Your task to perform on an android device: Open eBay Image 0: 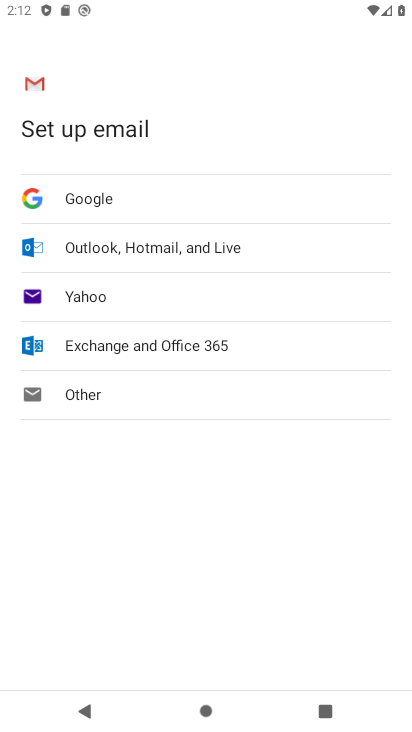
Step 0: press home button
Your task to perform on an android device: Open eBay Image 1: 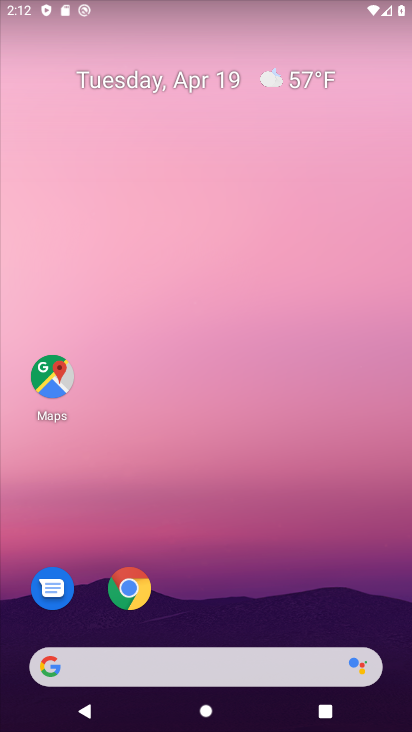
Step 1: click (136, 585)
Your task to perform on an android device: Open eBay Image 2: 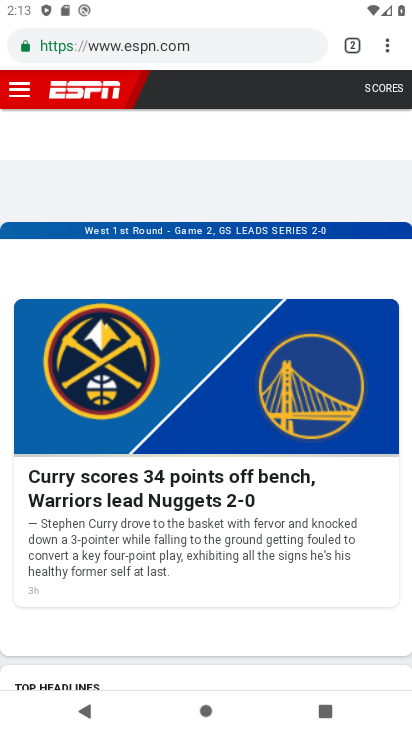
Step 2: click (385, 44)
Your task to perform on an android device: Open eBay Image 3: 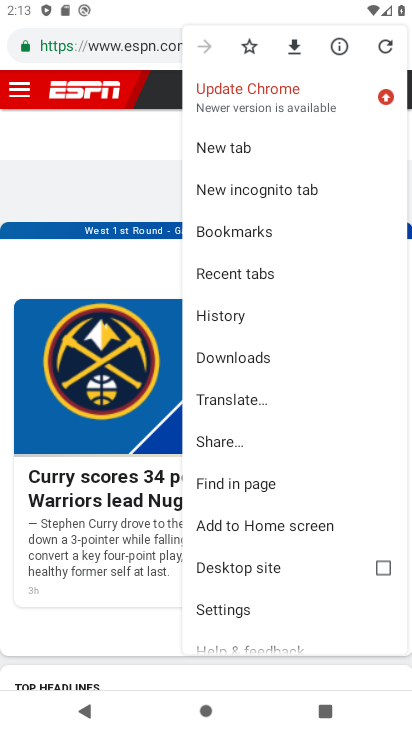
Step 3: click (288, 144)
Your task to perform on an android device: Open eBay Image 4: 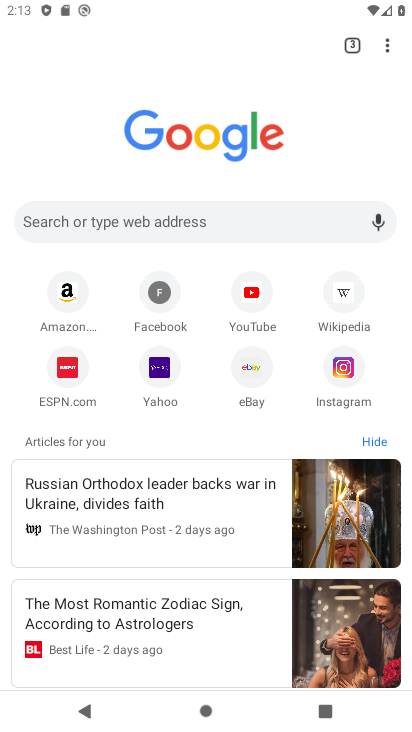
Step 4: click (253, 215)
Your task to perform on an android device: Open eBay Image 5: 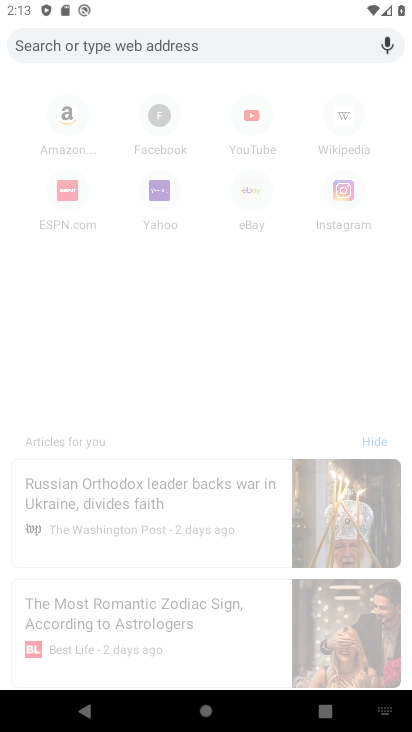
Step 5: type "eBay"
Your task to perform on an android device: Open eBay Image 6: 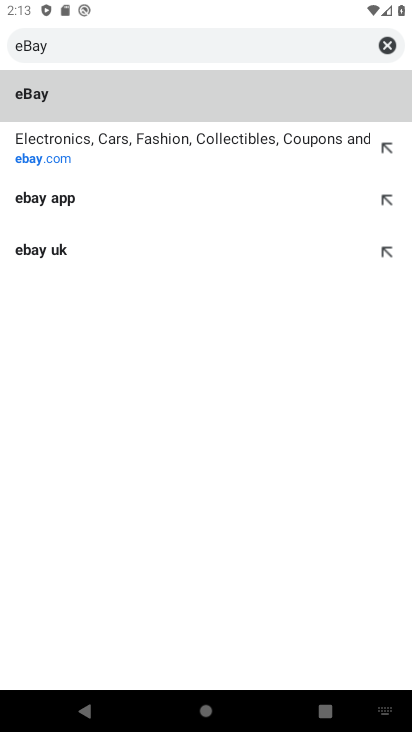
Step 6: click (65, 89)
Your task to perform on an android device: Open eBay Image 7: 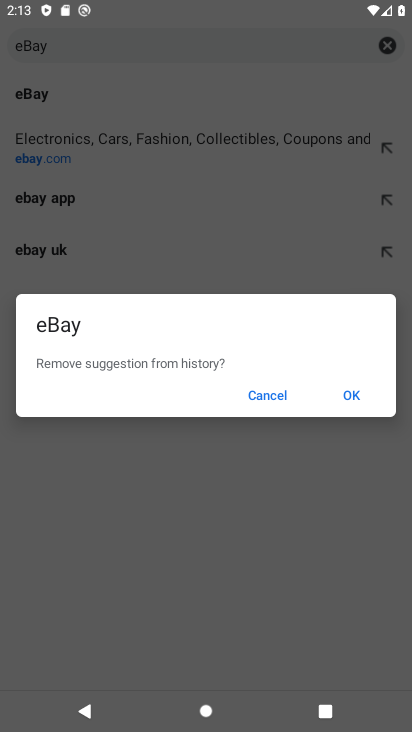
Step 7: click (273, 396)
Your task to perform on an android device: Open eBay Image 8: 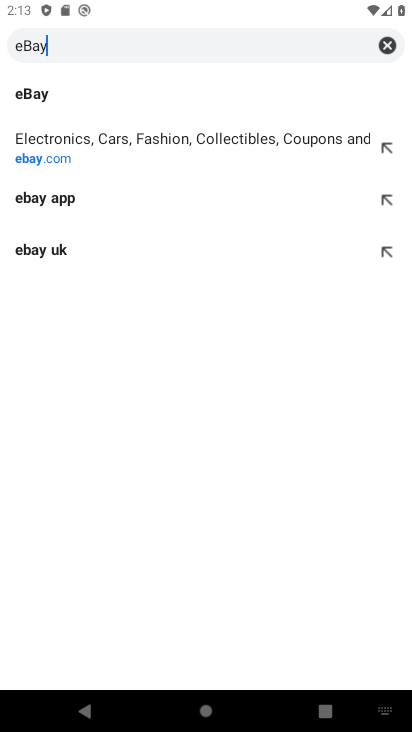
Step 8: click (65, 197)
Your task to perform on an android device: Open eBay Image 9: 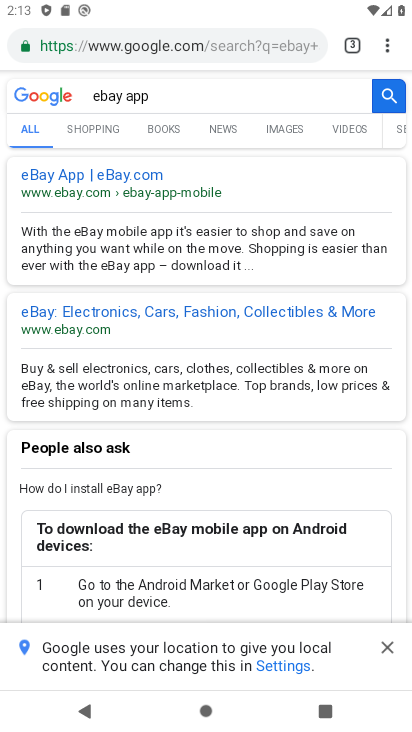
Step 9: click (90, 311)
Your task to perform on an android device: Open eBay Image 10: 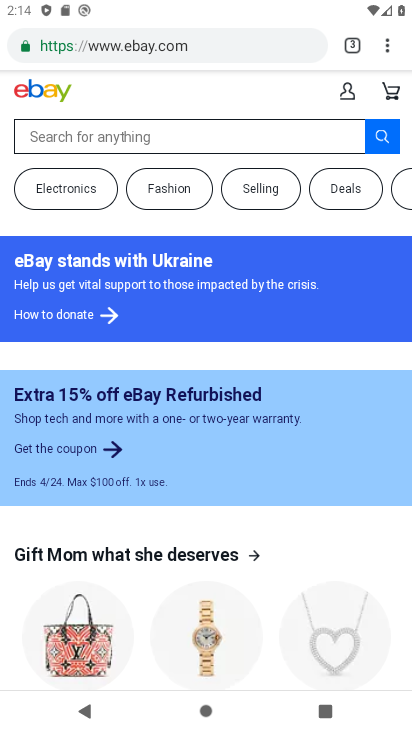
Step 10: task complete